Your task to perform on an android device: find photos in the google photos app Image 0: 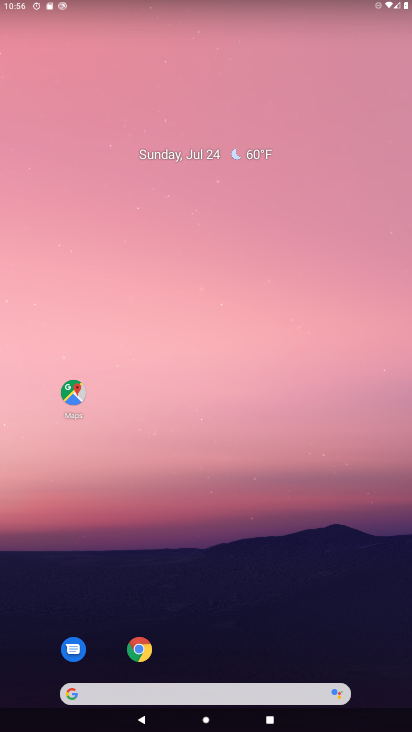
Step 0: drag from (240, 616) to (247, 38)
Your task to perform on an android device: find photos in the google photos app Image 1: 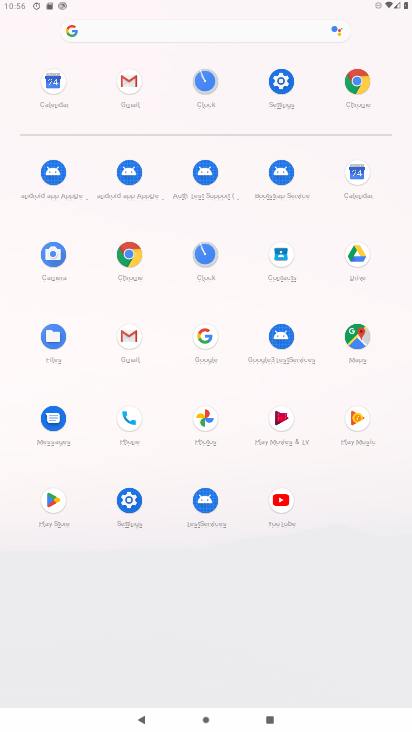
Step 1: click (207, 410)
Your task to perform on an android device: find photos in the google photos app Image 2: 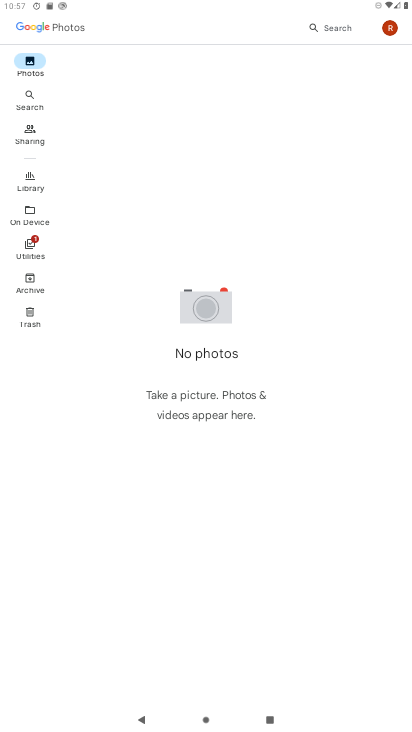
Step 2: task complete